Your task to perform on an android device: remove spam from my inbox in the gmail app Image 0: 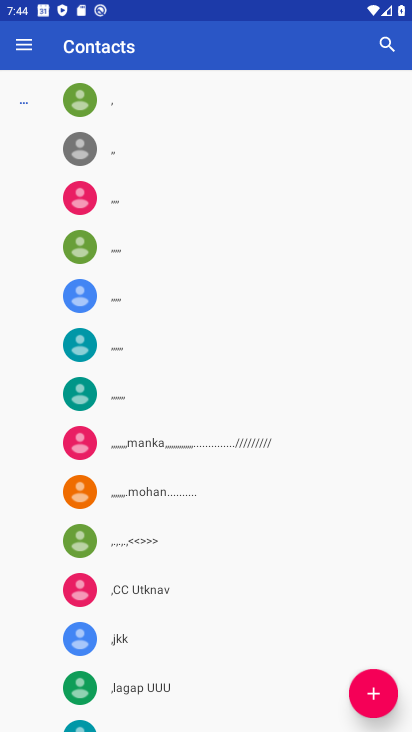
Step 0: press home button
Your task to perform on an android device: remove spam from my inbox in the gmail app Image 1: 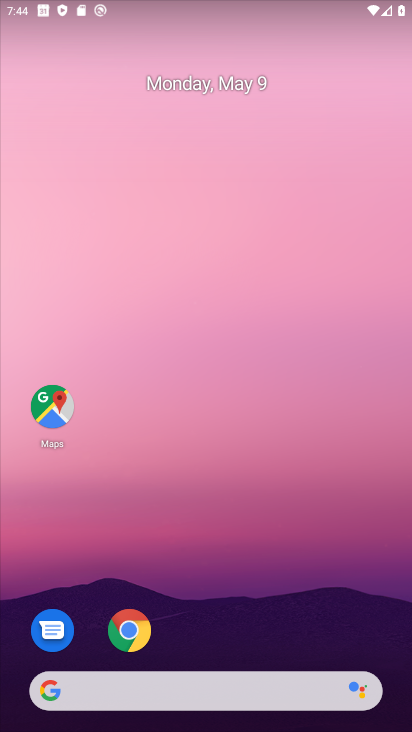
Step 1: drag from (306, 621) to (315, 214)
Your task to perform on an android device: remove spam from my inbox in the gmail app Image 2: 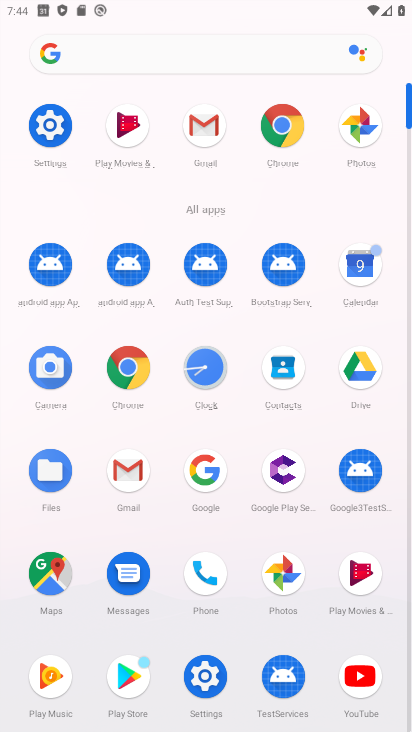
Step 2: click (124, 476)
Your task to perform on an android device: remove spam from my inbox in the gmail app Image 3: 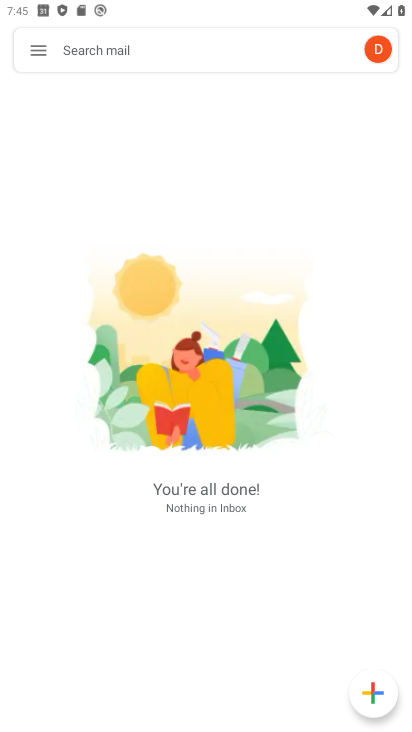
Step 3: click (41, 52)
Your task to perform on an android device: remove spam from my inbox in the gmail app Image 4: 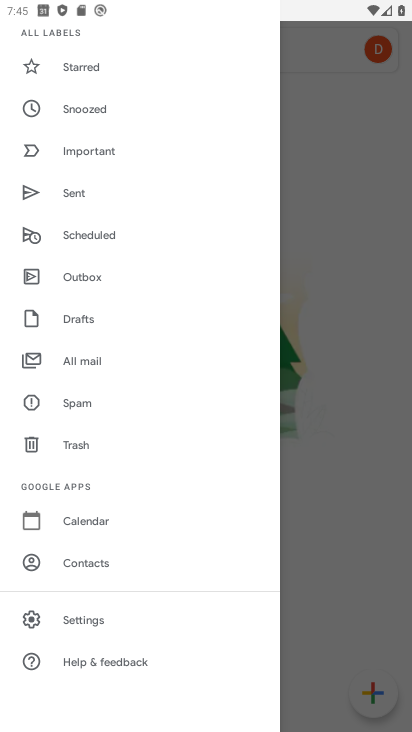
Step 4: drag from (139, 629) to (144, 531)
Your task to perform on an android device: remove spam from my inbox in the gmail app Image 5: 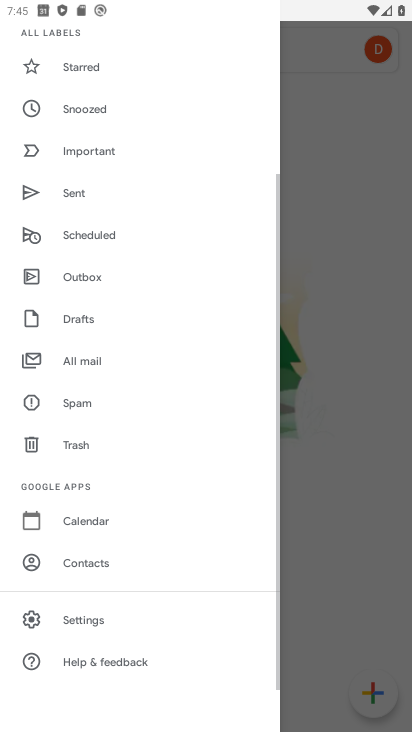
Step 5: click (106, 401)
Your task to perform on an android device: remove spam from my inbox in the gmail app Image 6: 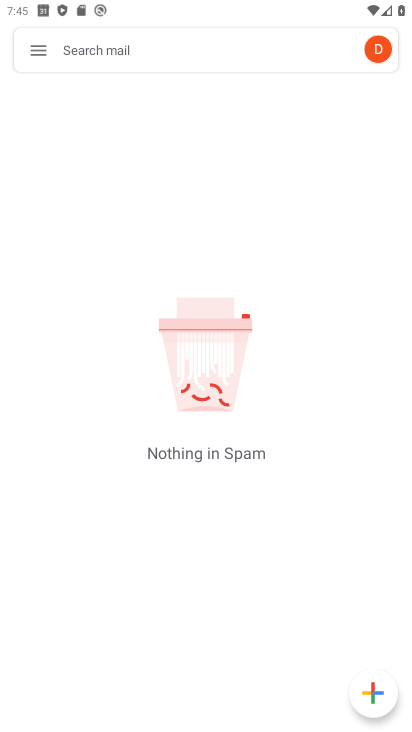
Step 6: task complete